Your task to perform on an android device: set default search engine in the chrome app Image 0: 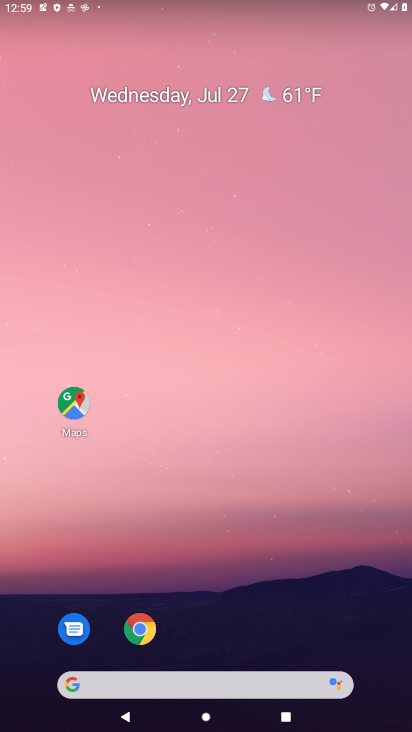
Step 0: click (137, 620)
Your task to perform on an android device: set default search engine in the chrome app Image 1: 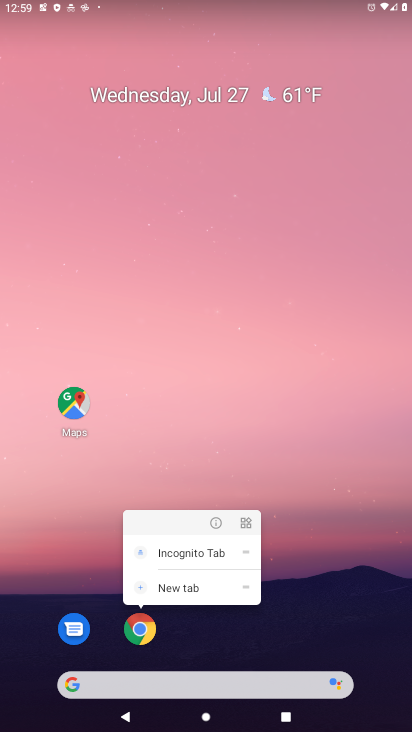
Step 1: click (136, 627)
Your task to perform on an android device: set default search engine in the chrome app Image 2: 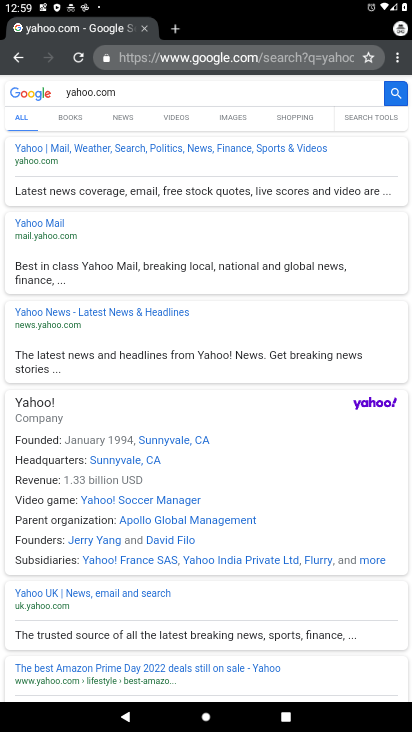
Step 2: click (395, 56)
Your task to perform on an android device: set default search engine in the chrome app Image 3: 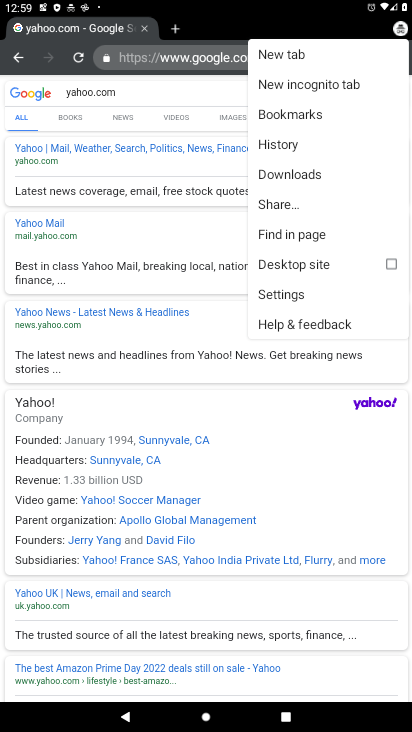
Step 3: click (317, 289)
Your task to perform on an android device: set default search engine in the chrome app Image 4: 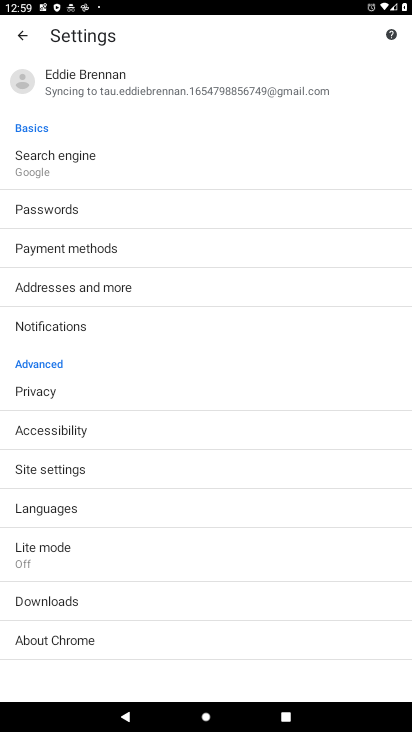
Step 4: click (100, 153)
Your task to perform on an android device: set default search engine in the chrome app Image 5: 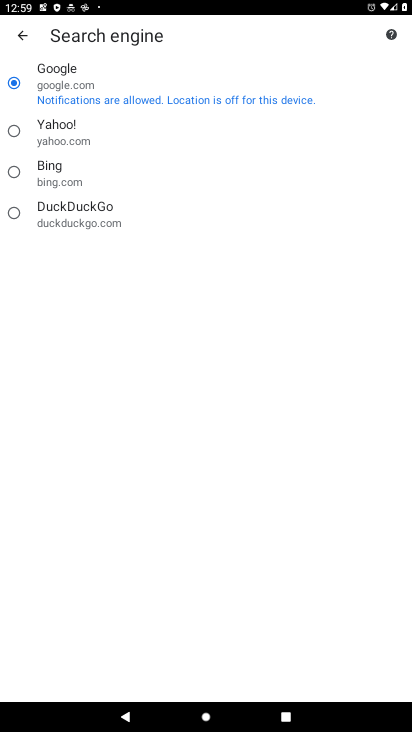
Step 5: click (64, 177)
Your task to perform on an android device: set default search engine in the chrome app Image 6: 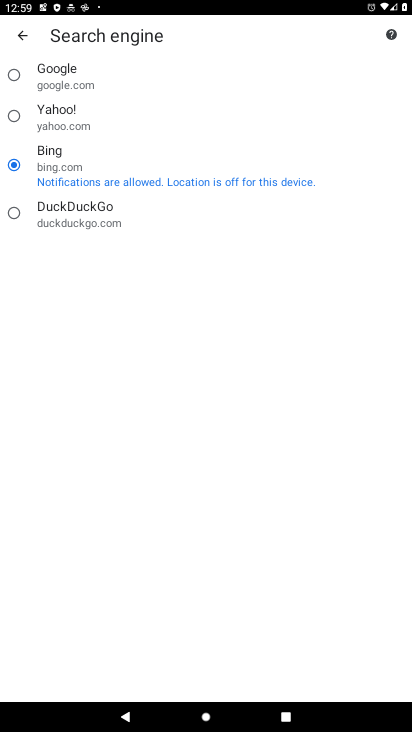
Step 6: task complete